Your task to perform on an android device: turn off priority inbox in the gmail app Image 0: 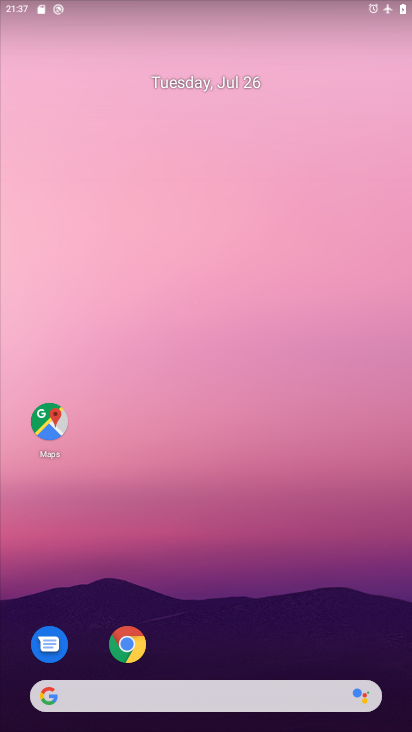
Step 0: drag from (246, 641) to (204, 378)
Your task to perform on an android device: turn off priority inbox in the gmail app Image 1: 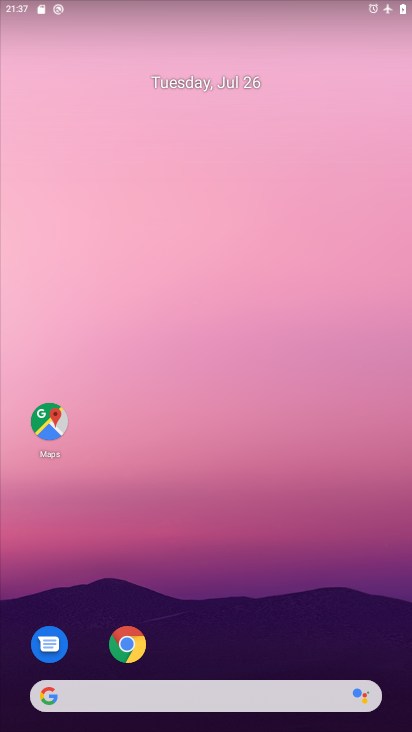
Step 1: drag from (255, 660) to (213, 93)
Your task to perform on an android device: turn off priority inbox in the gmail app Image 2: 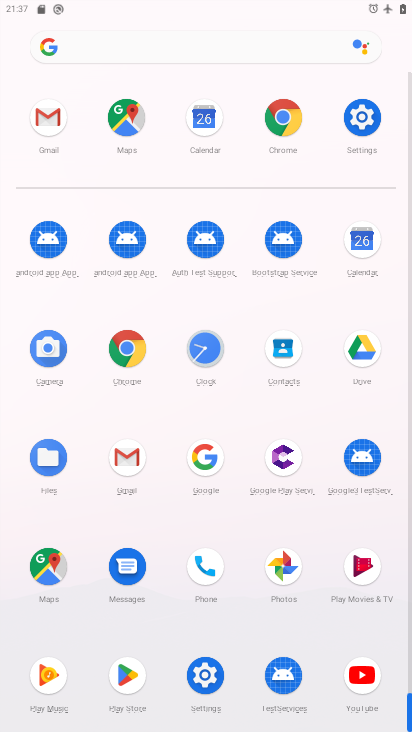
Step 2: click (42, 119)
Your task to perform on an android device: turn off priority inbox in the gmail app Image 3: 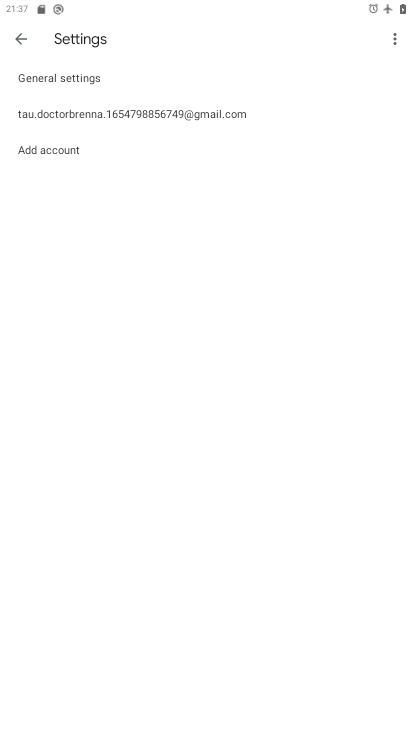
Step 3: click (46, 119)
Your task to perform on an android device: turn off priority inbox in the gmail app Image 4: 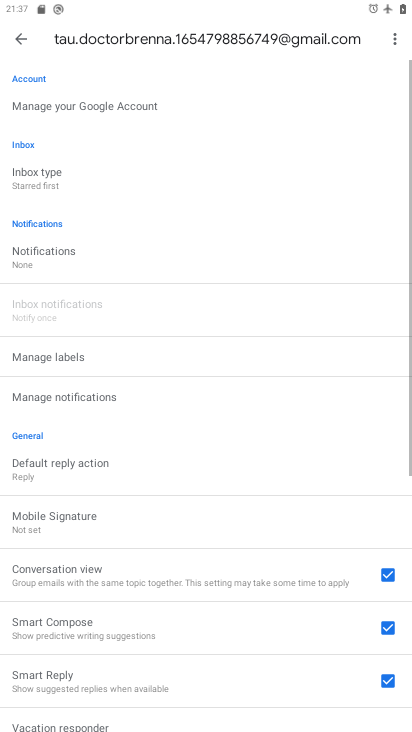
Step 4: click (40, 175)
Your task to perform on an android device: turn off priority inbox in the gmail app Image 5: 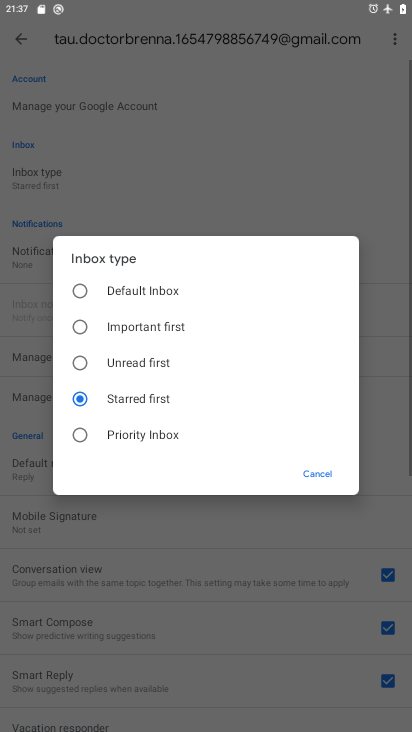
Step 5: click (104, 292)
Your task to perform on an android device: turn off priority inbox in the gmail app Image 6: 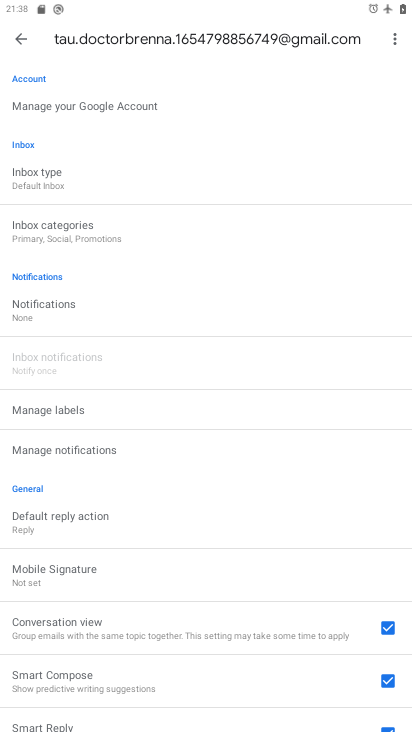
Step 6: task complete